Your task to perform on an android device: turn off wifi Image 0: 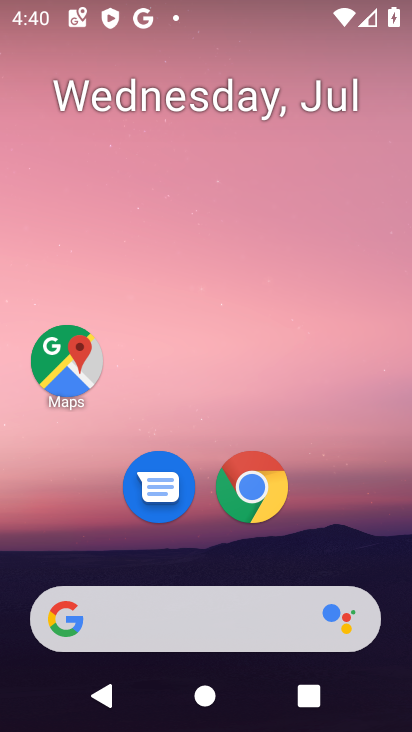
Step 0: drag from (139, 10) to (174, 598)
Your task to perform on an android device: turn off wifi Image 1: 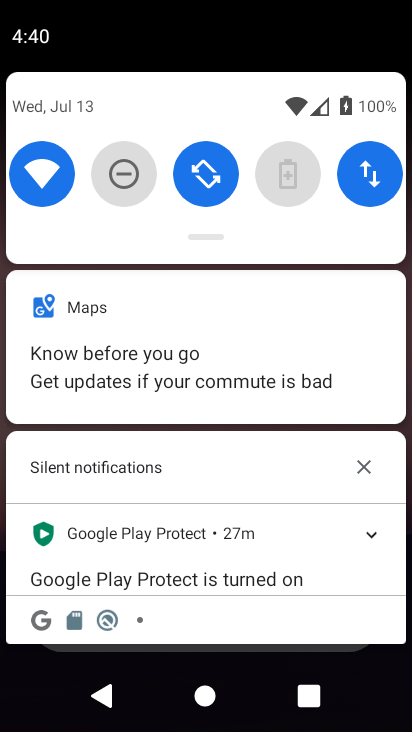
Step 1: click (43, 158)
Your task to perform on an android device: turn off wifi Image 2: 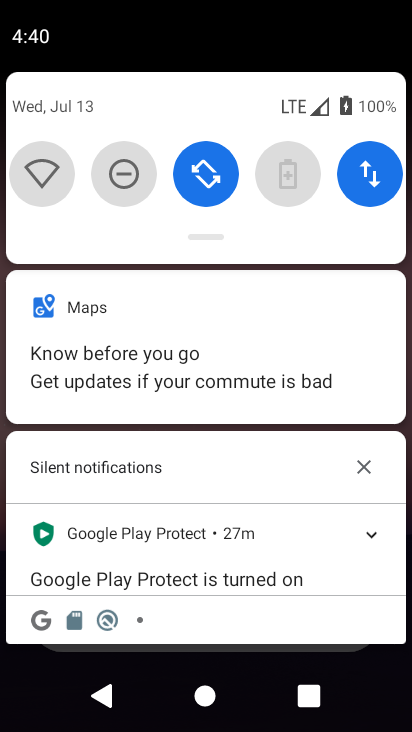
Step 2: task complete